Your task to perform on an android device: turn on the 12-hour format for clock Image 0: 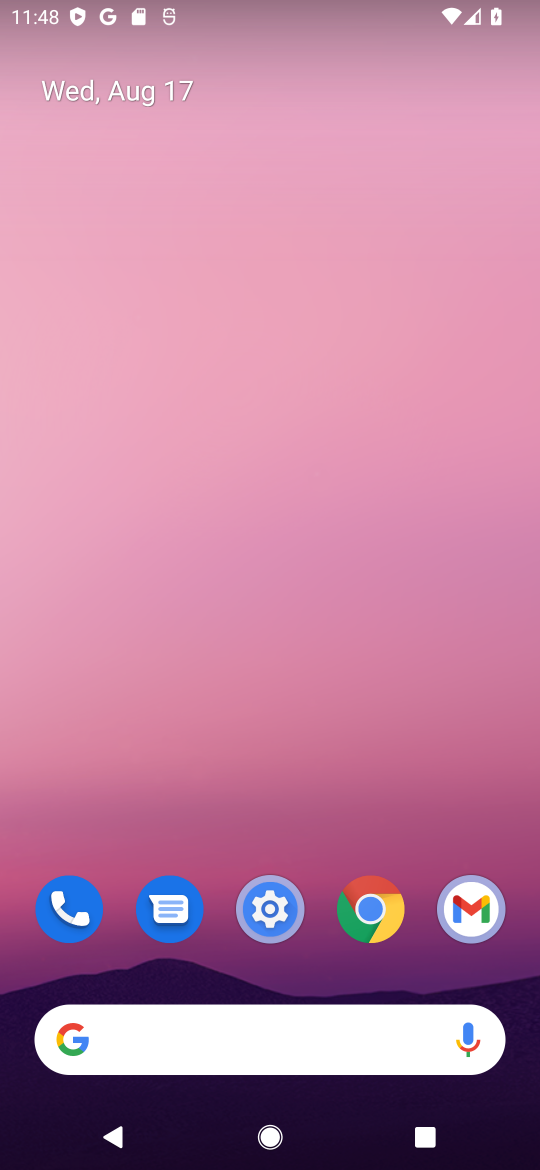
Step 0: press home button
Your task to perform on an android device: turn on the 12-hour format for clock Image 1: 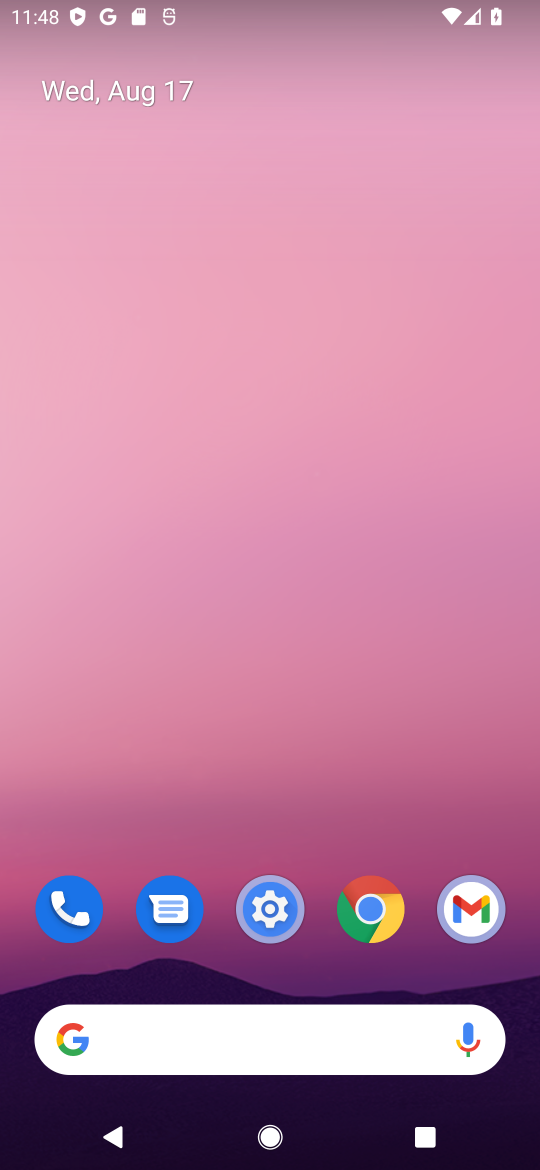
Step 1: drag from (331, 813) to (314, 79)
Your task to perform on an android device: turn on the 12-hour format for clock Image 2: 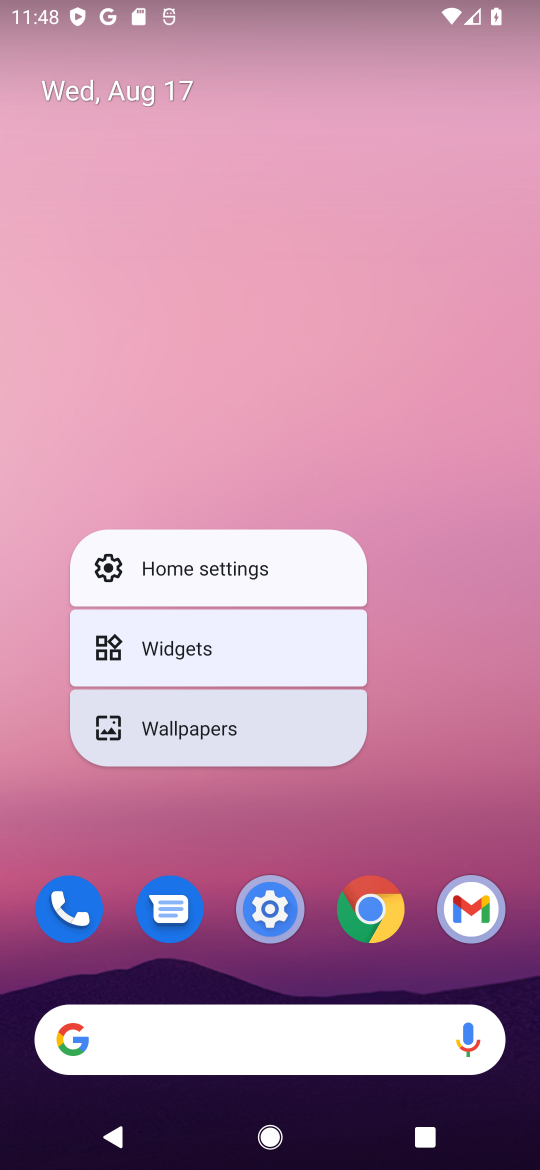
Step 2: click (370, 371)
Your task to perform on an android device: turn on the 12-hour format for clock Image 3: 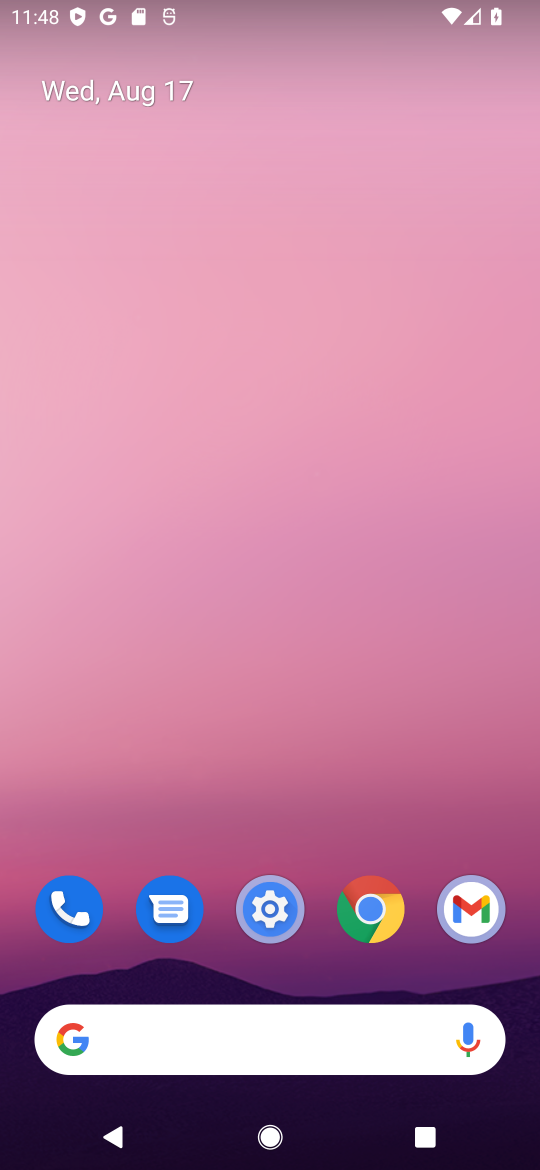
Step 3: drag from (322, 967) to (258, 305)
Your task to perform on an android device: turn on the 12-hour format for clock Image 4: 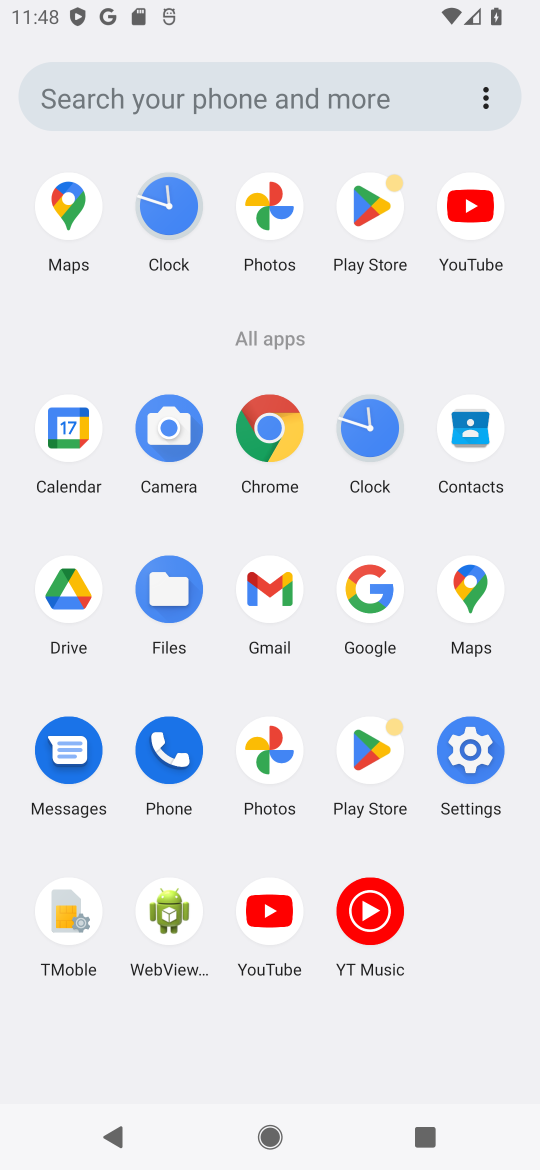
Step 4: click (177, 205)
Your task to perform on an android device: turn on the 12-hour format for clock Image 5: 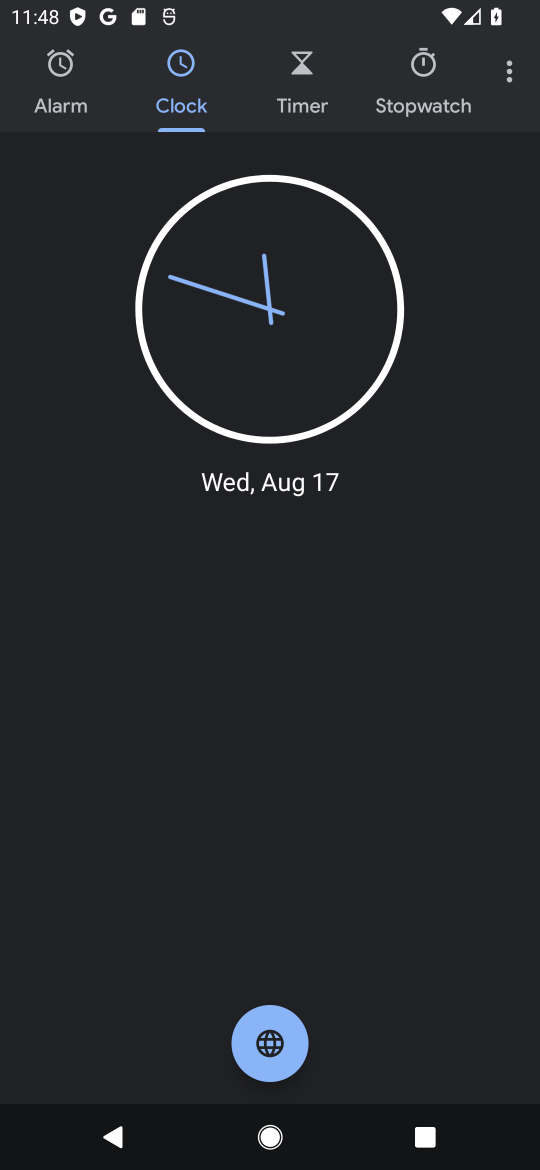
Step 5: click (511, 71)
Your task to perform on an android device: turn on the 12-hour format for clock Image 6: 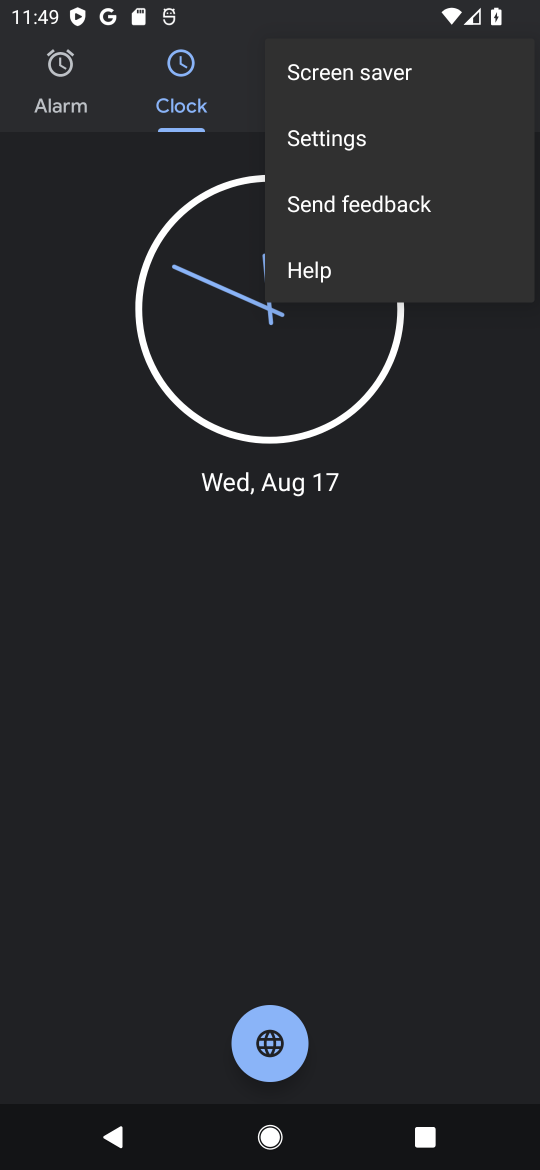
Step 6: click (351, 134)
Your task to perform on an android device: turn on the 12-hour format for clock Image 7: 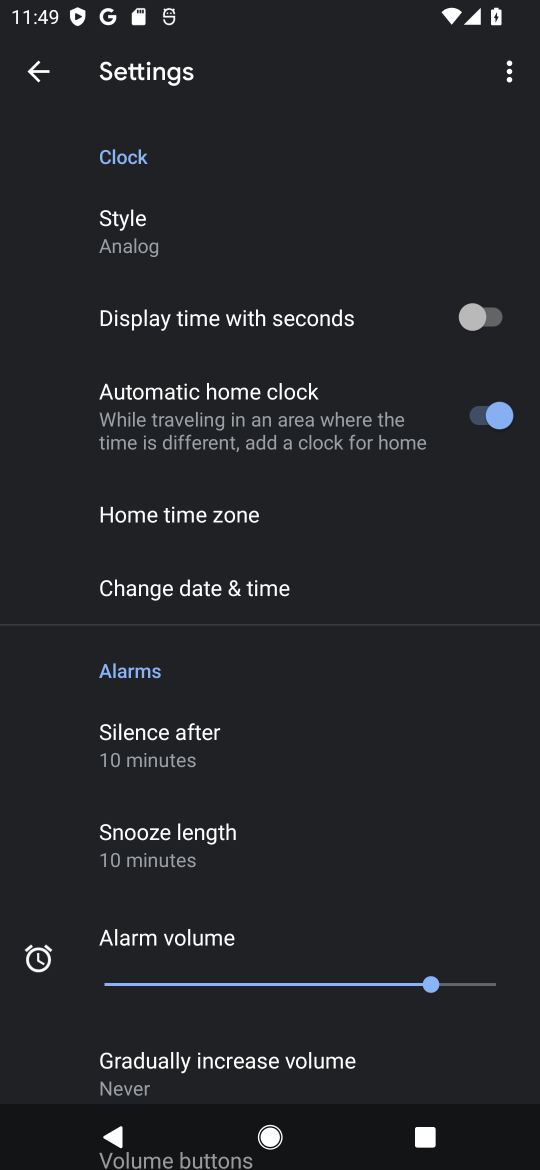
Step 7: click (226, 588)
Your task to perform on an android device: turn on the 12-hour format for clock Image 8: 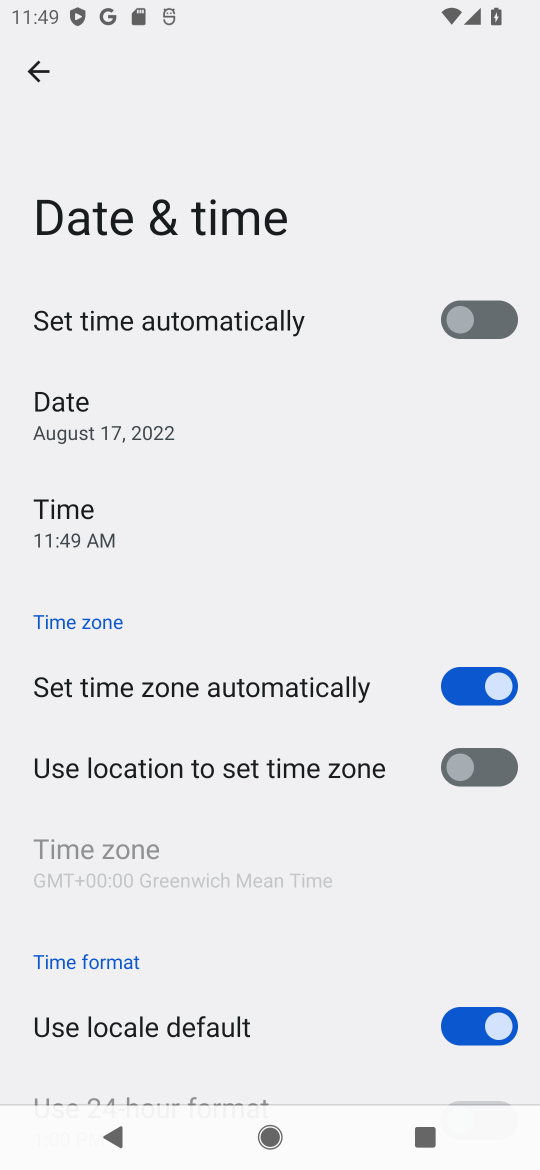
Step 8: task complete